Your task to perform on an android device: change notification settings in the gmail app Image 0: 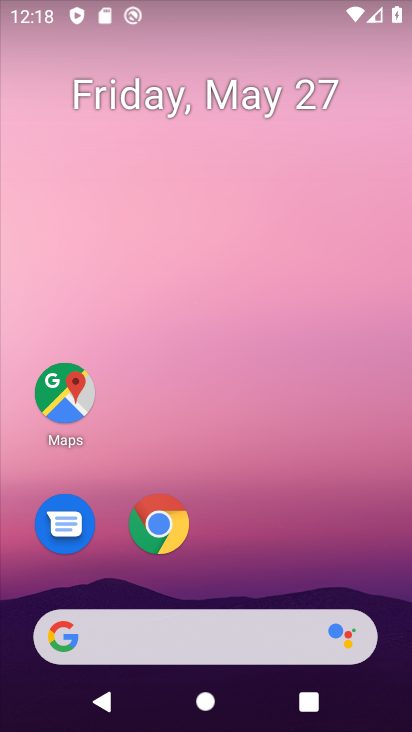
Step 0: drag from (254, 493) to (267, 56)
Your task to perform on an android device: change notification settings in the gmail app Image 1: 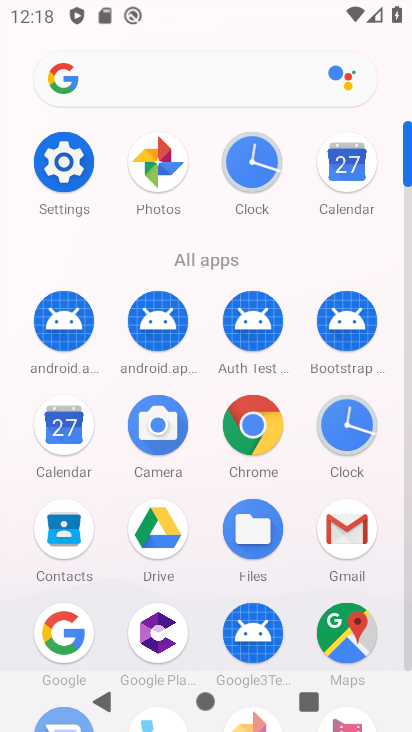
Step 1: click (360, 532)
Your task to perform on an android device: change notification settings in the gmail app Image 2: 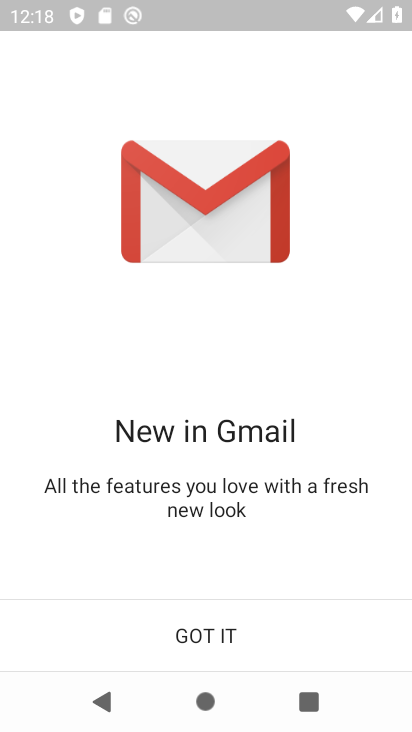
Step 2: click (264, 628)
Your task to perform on an android device: change notification settings in the gmail app Image 3: 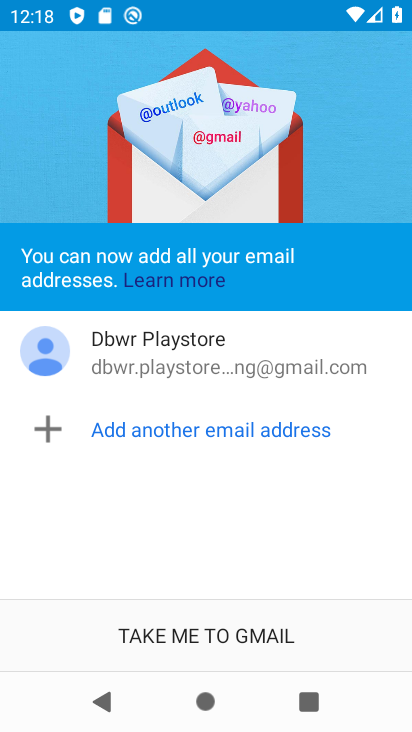
Step 3: click (264, 626)
Your task to perform on an android device: change notification settings in the gmail app Image 4: 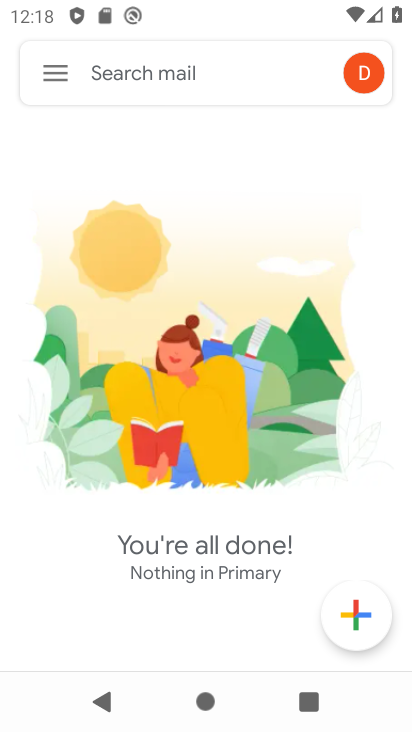
Step 4: click (56, 69)
Your task to perform on an android device: change notification settings in the gmail app Image 5: 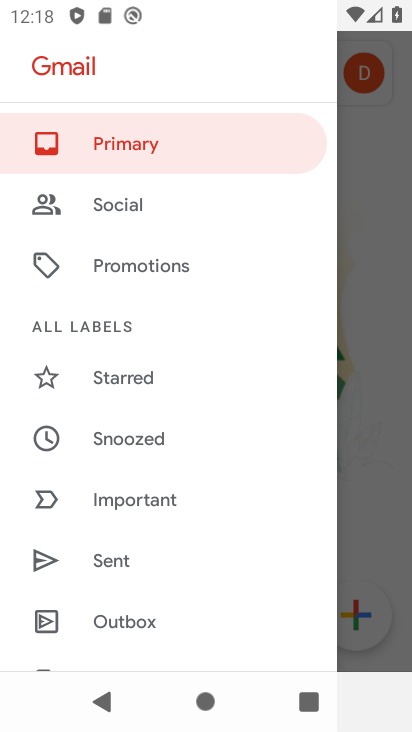
Step 5: drag from (175, 500) to (192, 55)
Your task to perform on an android device: change notification settings in the gmail app Image 6: 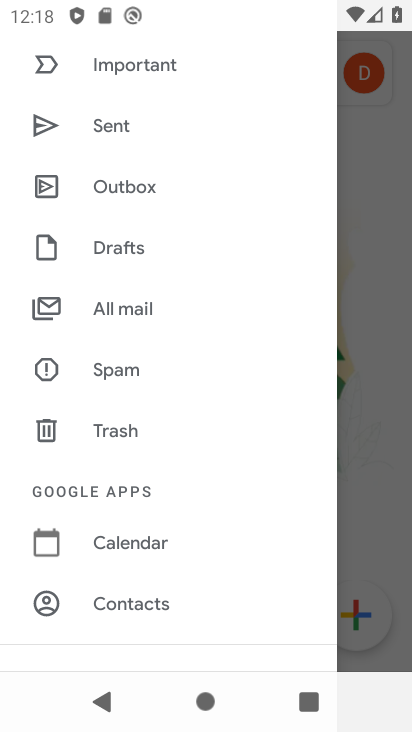
Step 6: drag from (175, 450) to (174, 218)
Your task to perform on an android device: change notification settings in the gmail app Image 7: 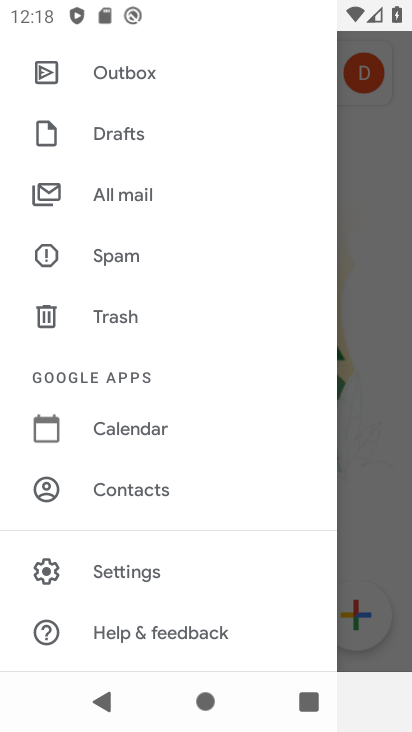
Step 7: click (165, 569)
Your task to perform on an android device: change notification settings in the gmail app Image 8: 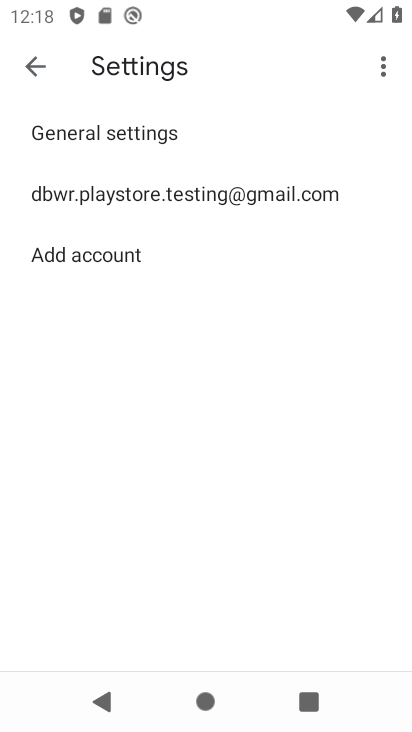
Step 8: click (187, 189)
Your task to perform on an android device: change notification settings in the gmail app Image 9: 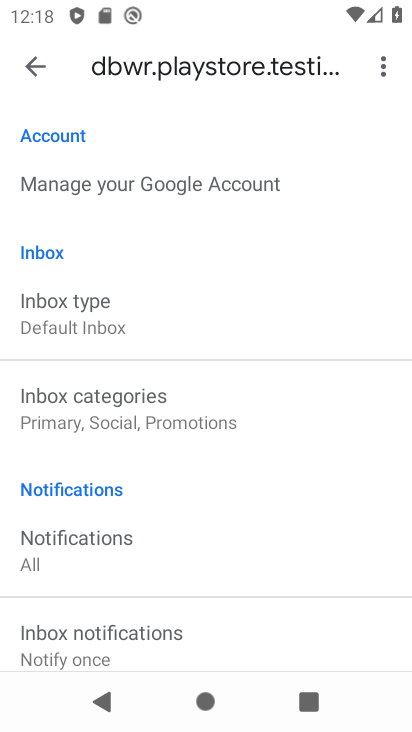
Step 9: drag from (244, 528) to (282, 103)
Your task to perform on an android device: change notification settings in the gmail app Image 10: 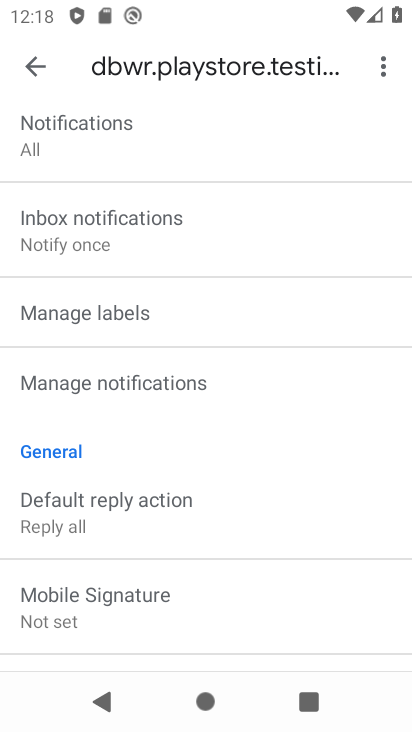
Step 10: click (226, 389)
Your task to perform on an android device: change notification settings in the gmail app Image 11: 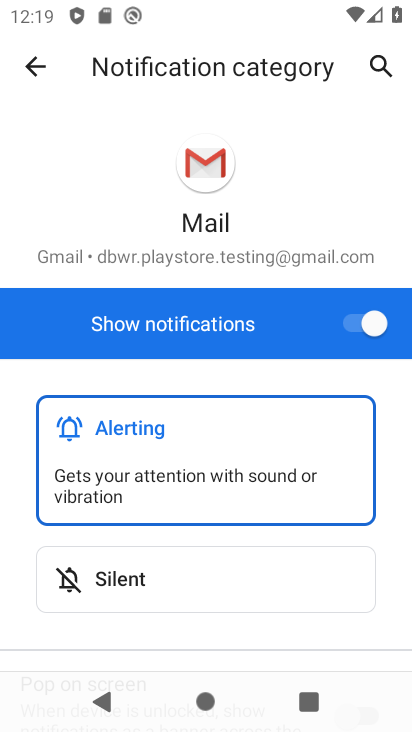
Step 11: click (369, 312)
Your task to perform on an android device: change notification settings in the gmail app Image 12: 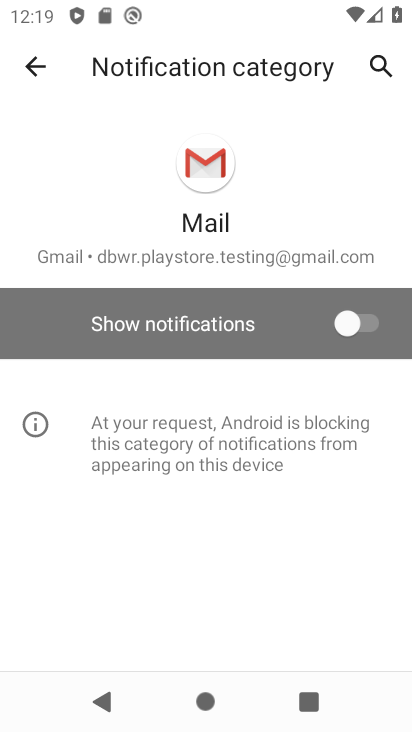
Step 12: task complete